Your task to perform on an android device: Set the phone to "Do not disturb". Image 0: 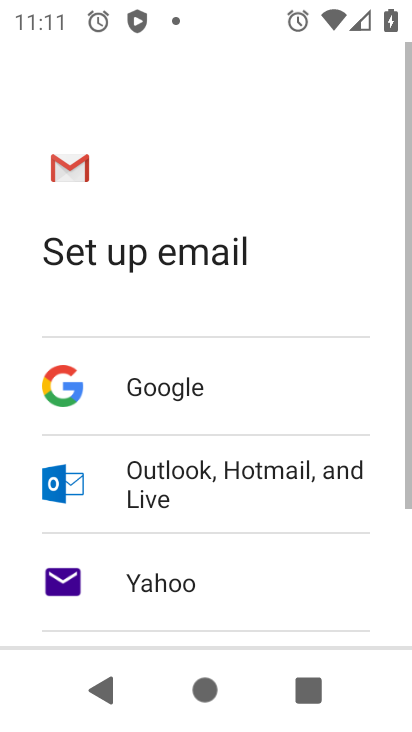
Step 0: press back button
Your task to perform on an android device: Set the phone to "Do not disturb". Image 1: 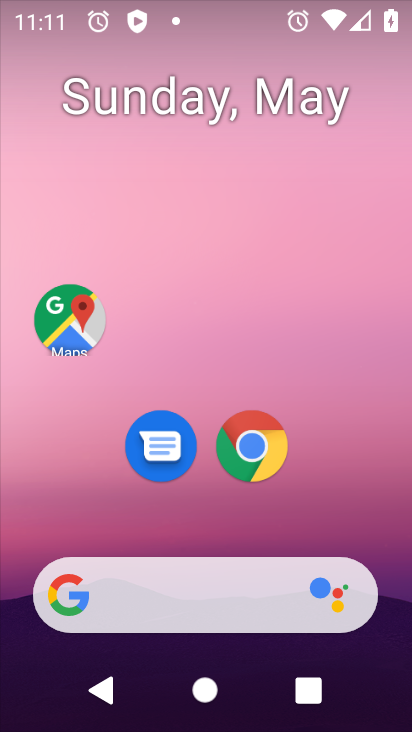
Step 1: drag from (393, 598) to (249, 30)
Your task to perform on an android device: Set the phone to "Do not disturb". Image 2: 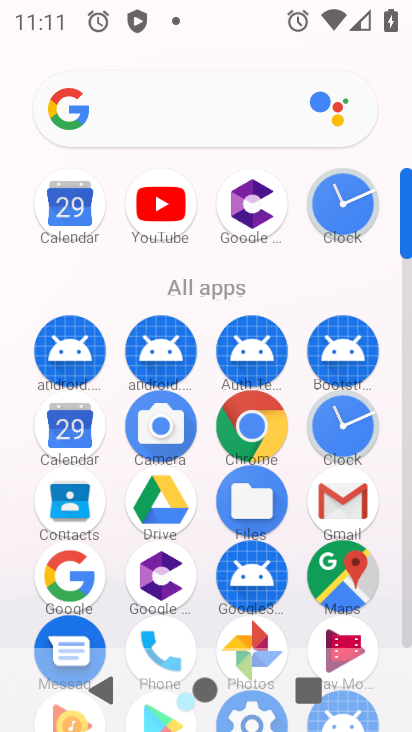
Step 2: drag from (17, 625) to (18, 241)
Your task to perform on an android device: Set the phone to "Do not disturb". Image 3: 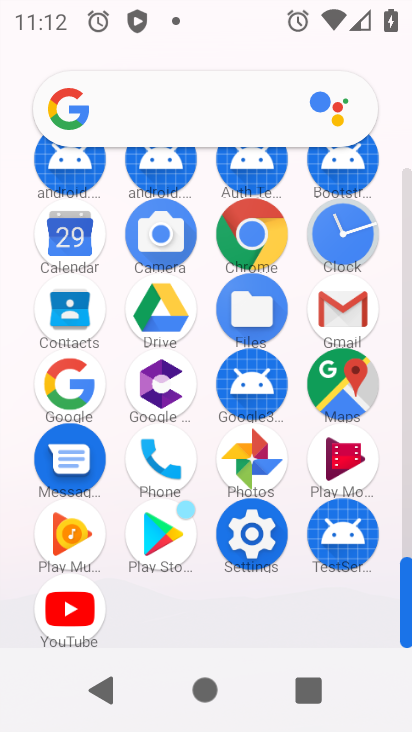
Step 3: click (256, 531)
Your task to perform on an android device: Set the phone to "Do not disturb". Image 4: 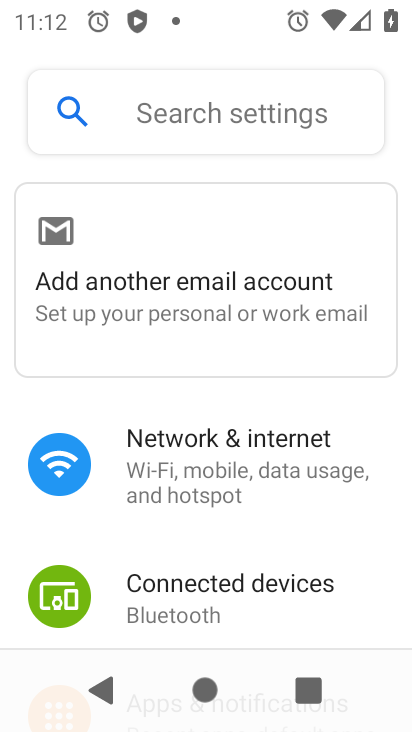
Step 4: drag from (298, 586) to (317, 173)
Your task to perform on an android device: Set the phone to "Do not disturb". Image 5: 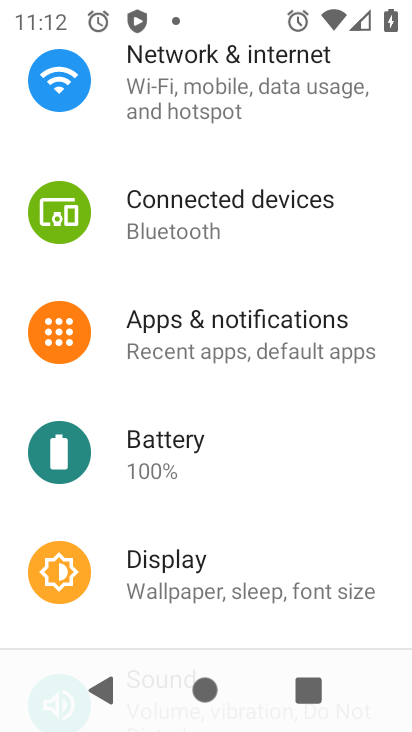
Step 5: drag from (313, 559) to (316, 227)
Your task to perform on an android device: Set the phone to "Do not disturb". Image 6: 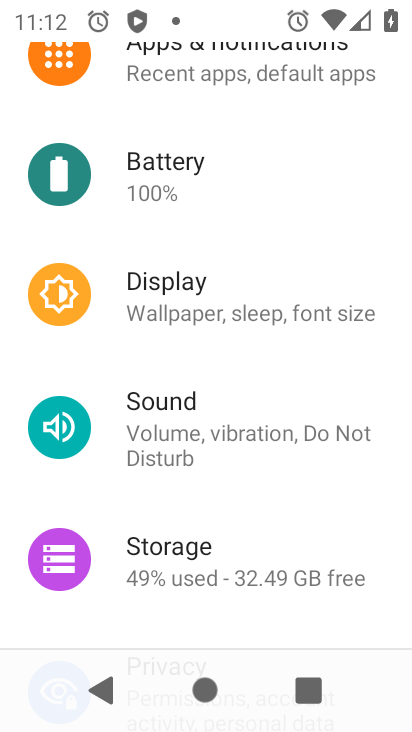
Step 6: click (244, 411)
Your task to perform on an android device: Set the phone to "Do not disturb". Image 7: 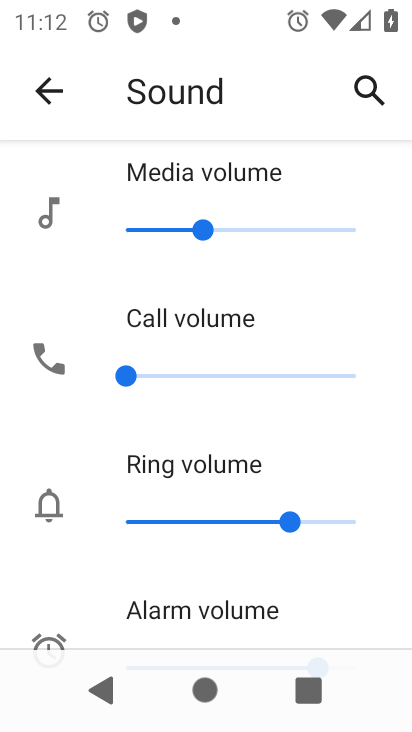
Step 7: drag from (216, 518) to (236, 208)
Your task to perform on an android device: Set the phone to "Do not disturb". Image 8: 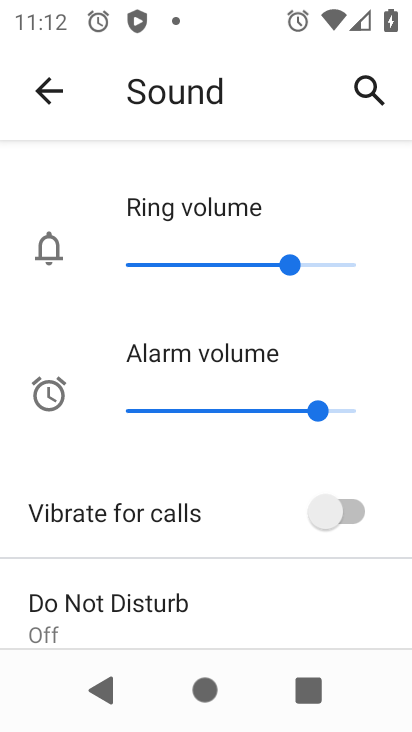
Step 8: drag from (235, 530) to (232, 143)
Your task to perform on an android device: Set the phone to "Do not disturb". Image 9: 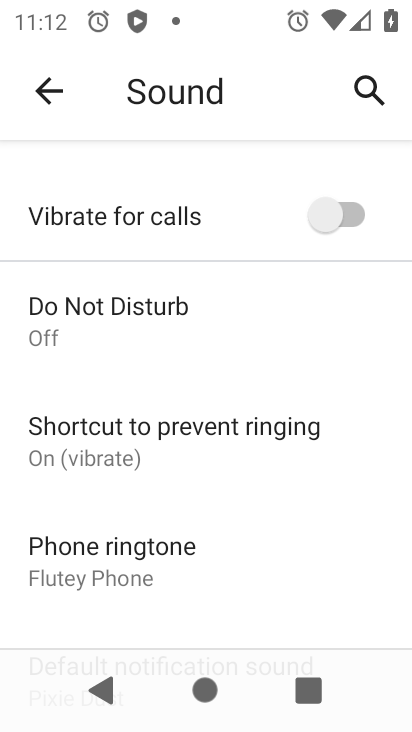
Step 9: click (134, 288)
Your task to perform on an android device: Set the phone to "Do not disturb". Image 10: 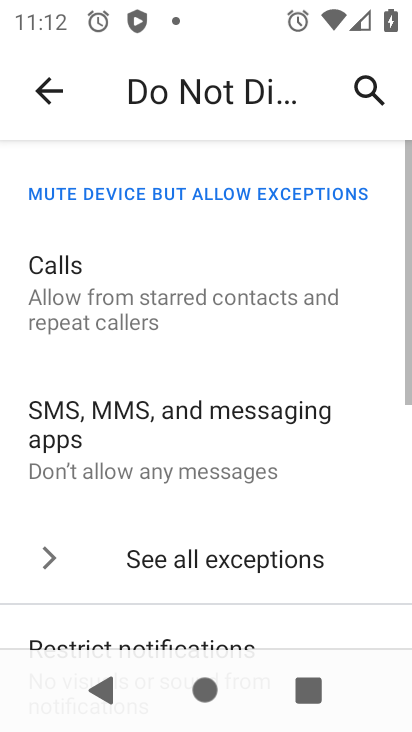
Step 10: drag from (229, 513) to (268, 156)
Your task to perform on an android device: Set the phone to "Do not disturb". Image 11: 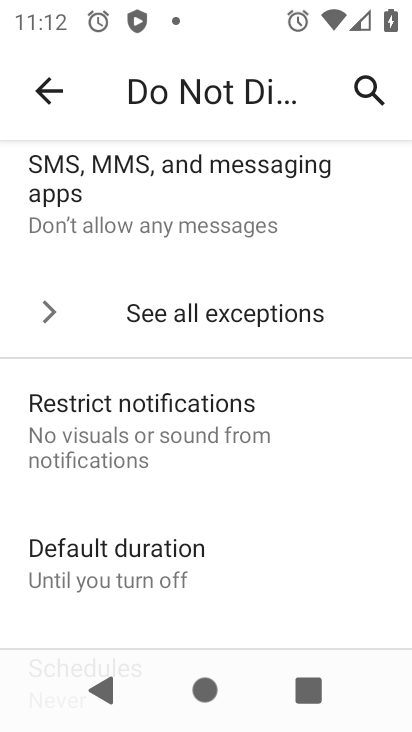
Step 11: drag from (226, 546) to (274, 166)
Your task to perform on an android device: Set the phone to "Do not disturb". Image 12: 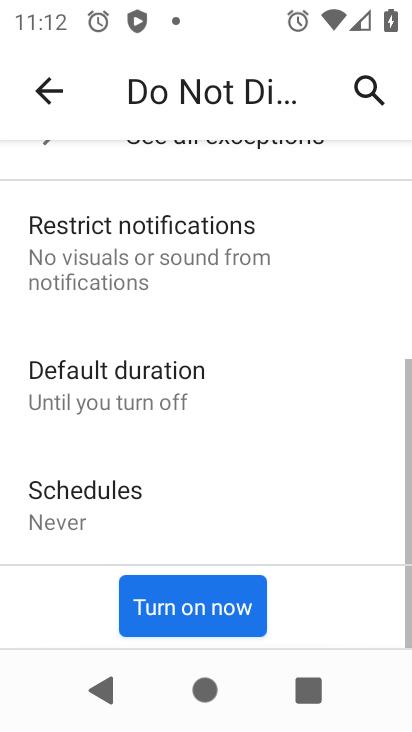
Step 12: click (201, 601)
Your task to perform on an android device: Set the phone to "Do not disturb". Image 13: 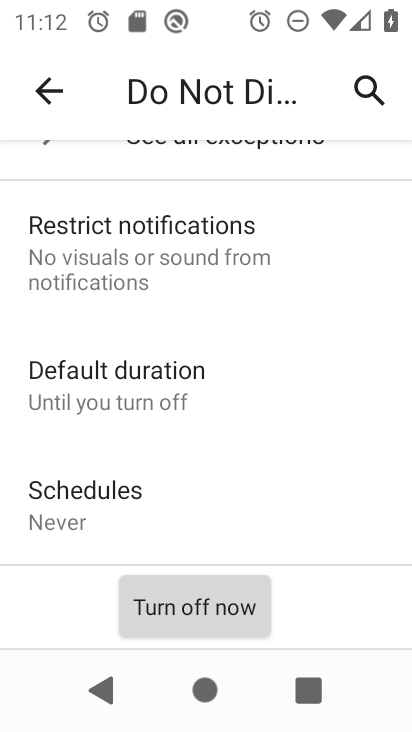
Step 13: task complete